Your task to perform on an android device: turn on javascript in the chrome app Image 0: 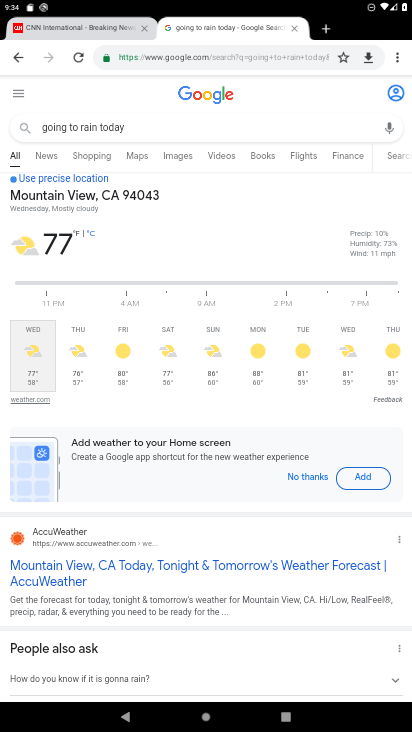
Step 0: press home button
Your task to perform on an android device: turn on javascript in the chrome app Image 1: 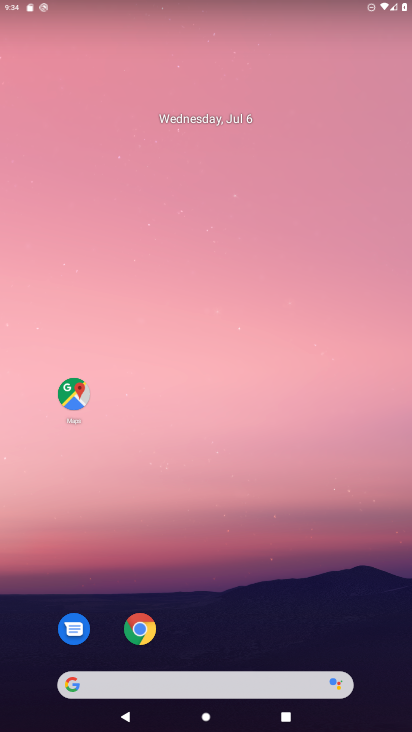
Step 1: drag from (268, 660) to (291, 0)
Your task to perform on an android device: turn on javascript in the chrome app Image 2: 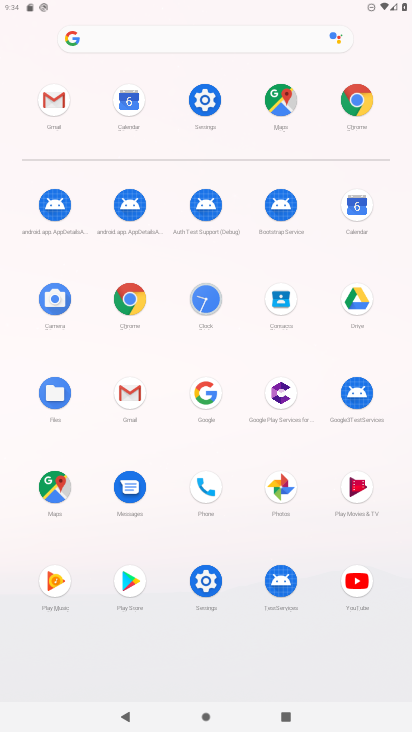
Step 2: click (122, 295)
Your task to perform on an android device: turn on javascript in the chrome app Image 3: 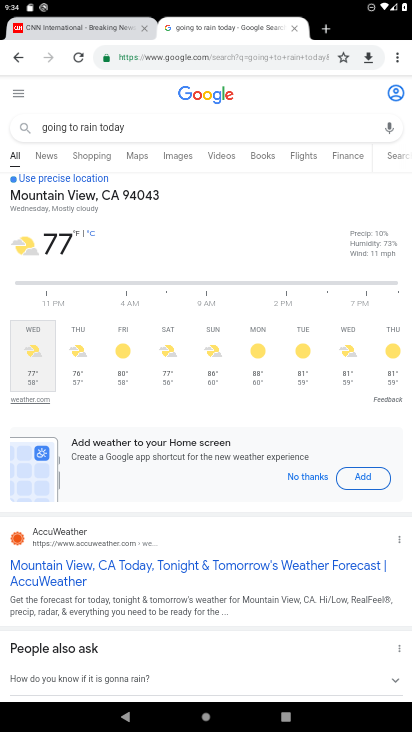
Step 3: click (397, 58)
Your task to perform on an android device: turn on javascript in the chrome app Image 4: 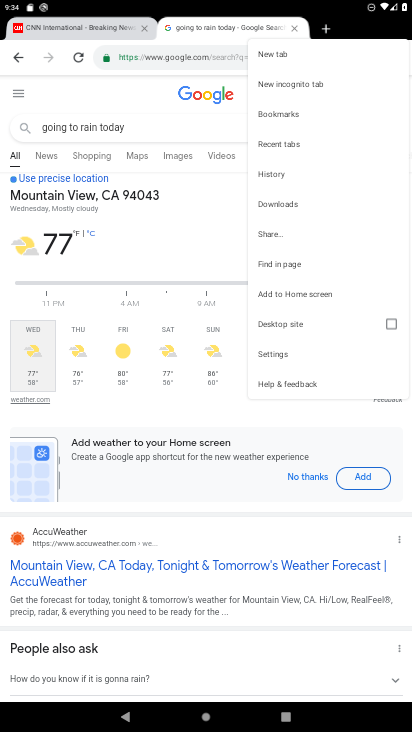
Step 4: click (296, 352)
Your task to perform on an android device: turn on javascript in the chrome app Image 5: 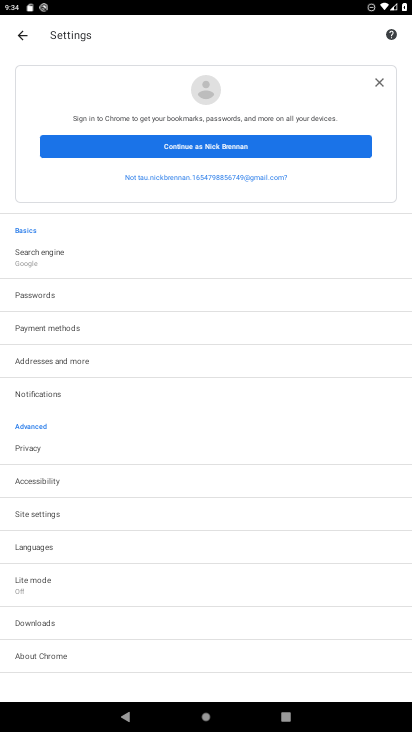
Step 5: click (40, 513)
Your task to perform on an android device: turn on javascript in the chrome app Image 6: 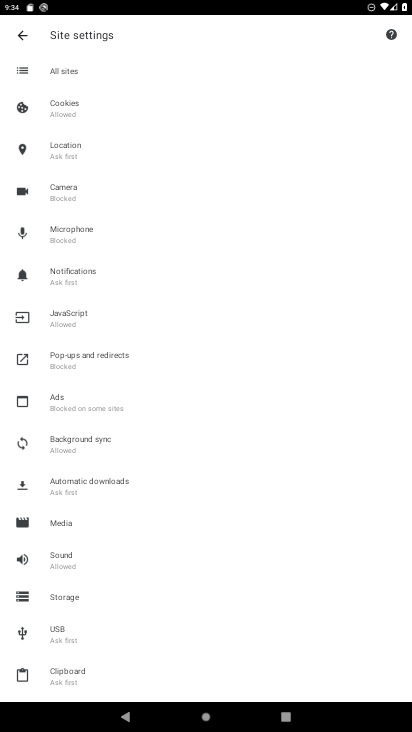
Step 6: click (78, 323)
Your task to perform on an android device: turn on javascript in the chrome app Image 7: 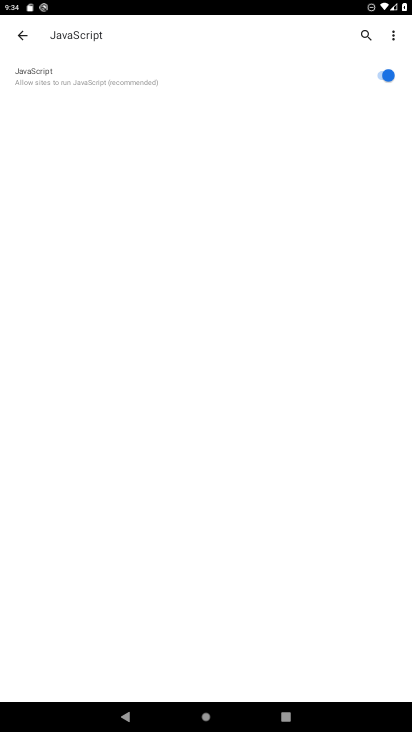
Step 7: task complete